Your task to perform on an android device: turn on data saver in the chrome app Image 0: 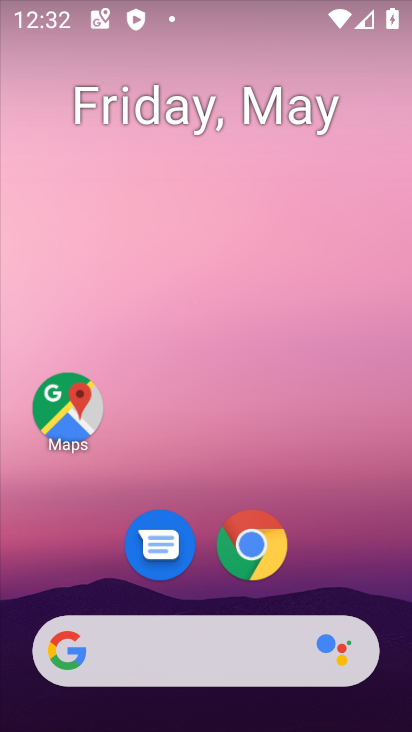
Step 0: click (258, 543)
Your task to perform on an android device: turn on data saver in the chrome app Image 1: 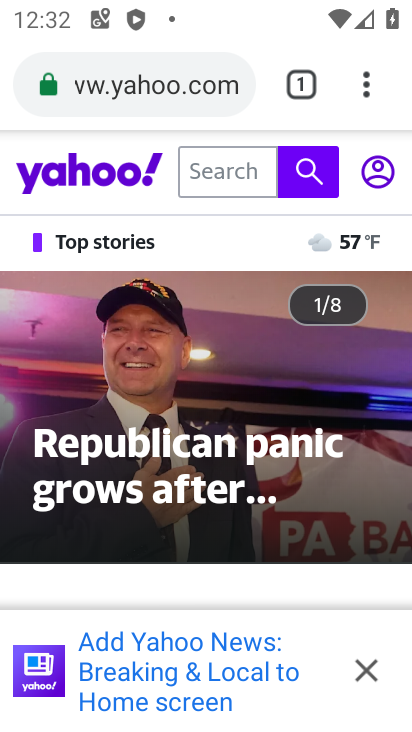
Step 1: click (364, 82)
Your task to perform on an android device: turn on data saver in the chrome app Image 2: 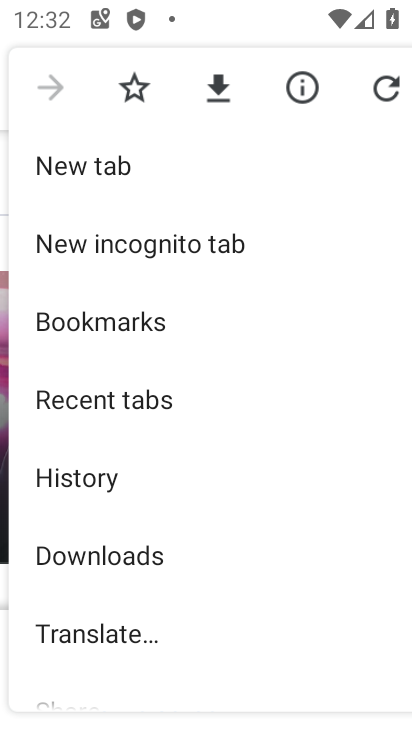
Step 2: drag from (247, 641) to (313, 361)
Your task to perform on an android device: turn on data saver in the chrome app Image 3: 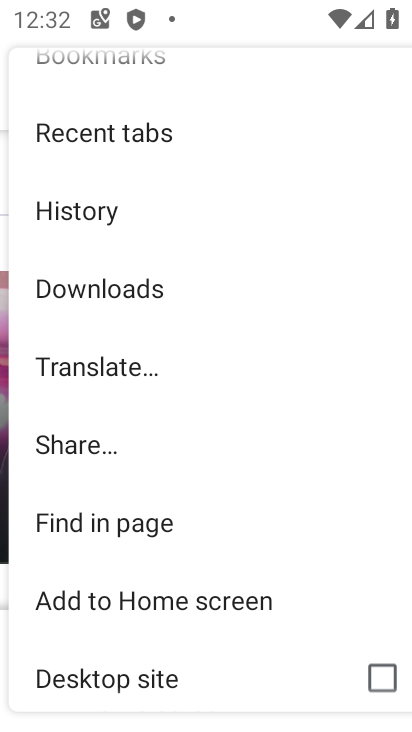
Step 3: drag from (197, 572) to (267, 310)
Your task to perform on an android device: turn on data saver in the chrome app Image 4: 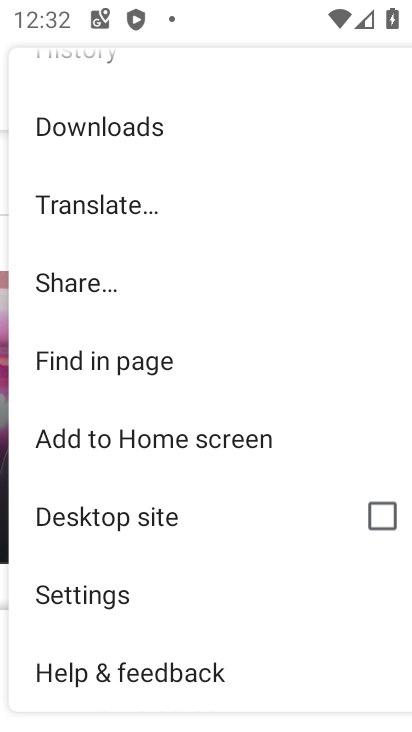
Step 4: click (83, 593)
Your task to perform on an android device: turn on data saver in the chrome app Image 5: 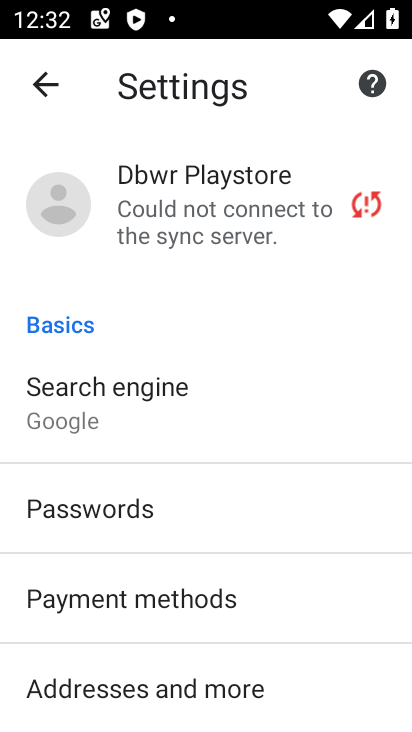
Step 5: drag from (226, 385) to (270, 70)
Your task to perform on an android device: turn on data saver in the chrome app Image 6: 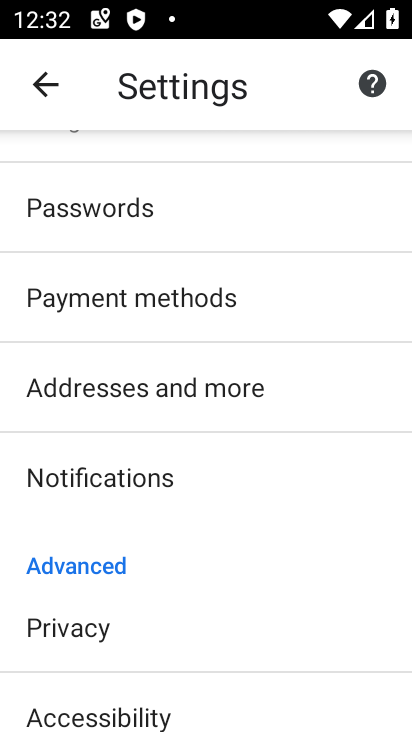
Step 6: click (255, 217)
Your task to perform on an android device: turn on data saver in the chrome app Image 7: 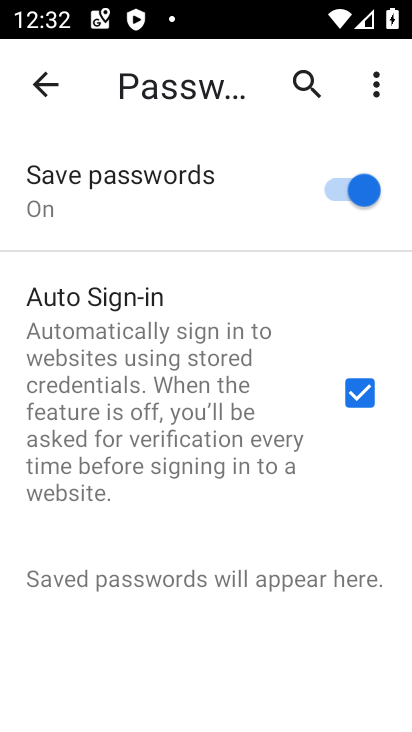
Step 7: press back button
Your task to perform on an android device: turn on data saver in the chrome app Image 8: 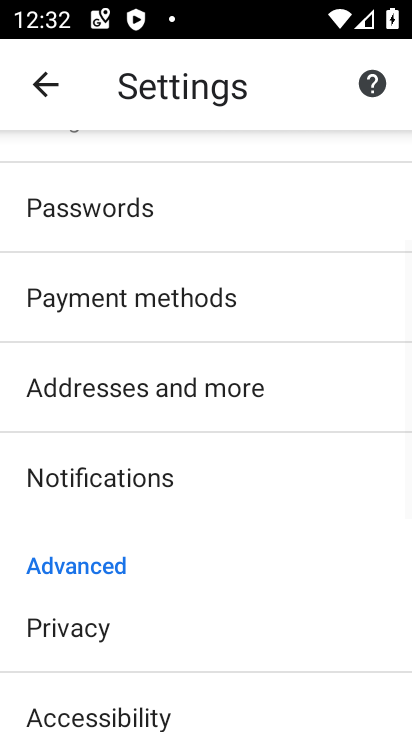
Step 8: drag from (265, 640) to (305, 218)
Your task to perform on an android device: turn on data saver in the chrome app Image 9: 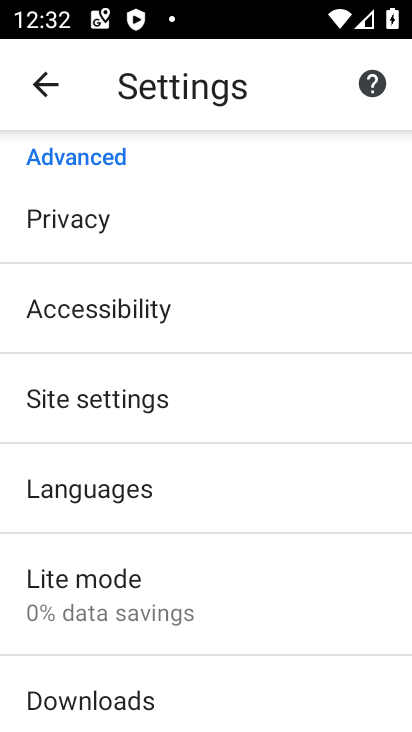
Step 9: drag from (328, 578) to (327, 288)
Your task to perform on an android device: turn on data saver in the chrome app Image 10: 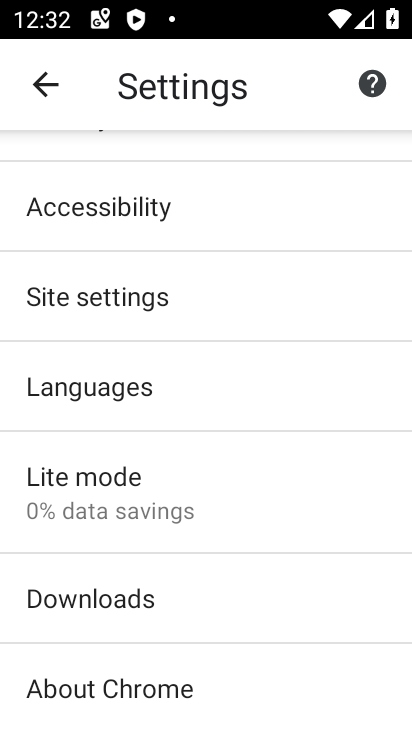
Step 10: drag from (232, 605) to (212, 341)
Your task to perform on an android device: turn on data saver in the chrome app Image 11: 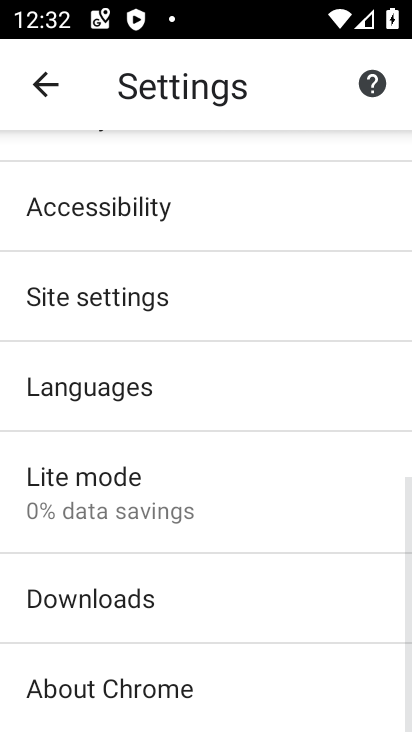
Step 11: click (373, 681)
Your task to perform on an android device: turn on data saver in the chrome app Image 12: 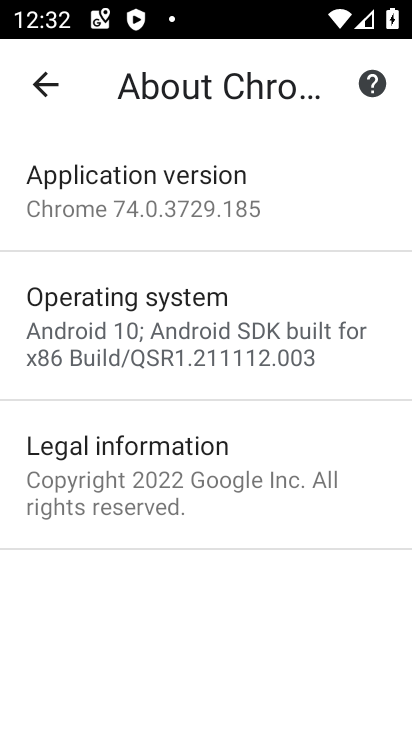
Step 12: press back button
Your task to perform on an android device: turn on data saver in the chrome app Image 13: 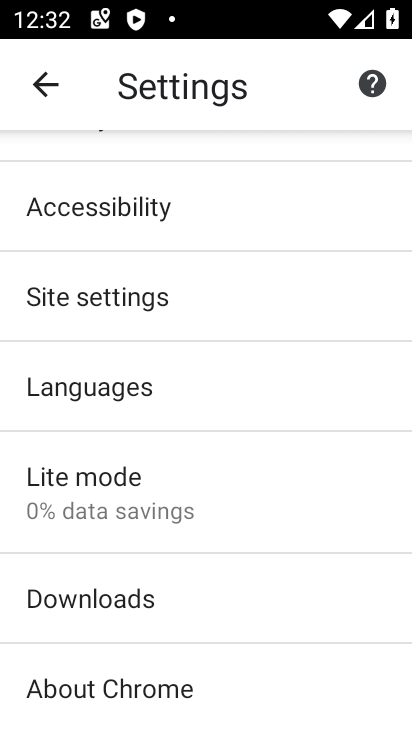
Step 13: click (124, 299)
Your task to perform on an android device: turn on data saver in the chrome app Image 14: 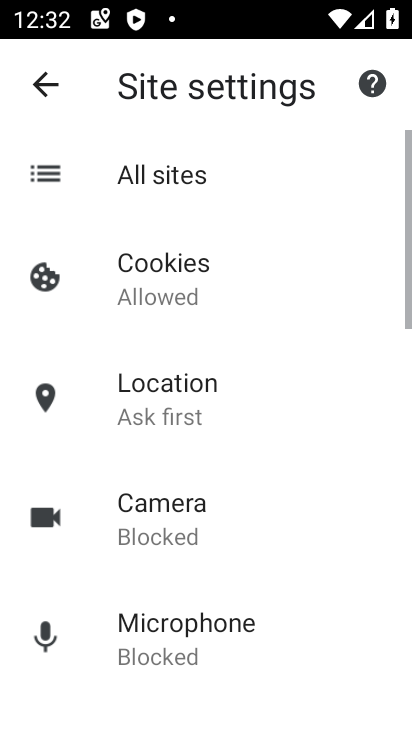
Step 14: task complete